Your task to perform on an android device: change notifications settings Image 0: 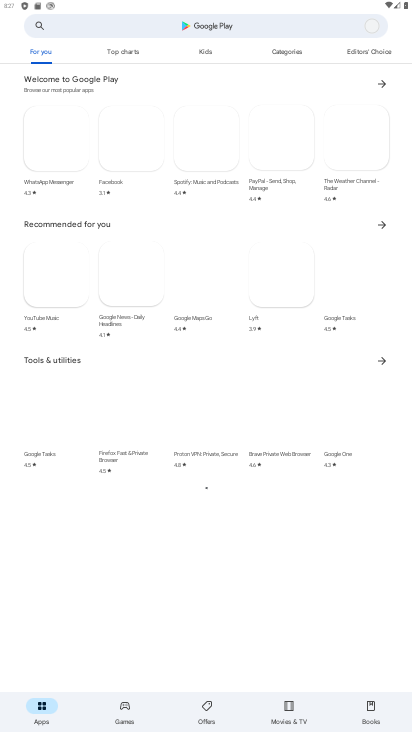
Step 0: drag from (254, 4) to (315, 482)
Your task to perform on an android device: change notifications settings Image 1: 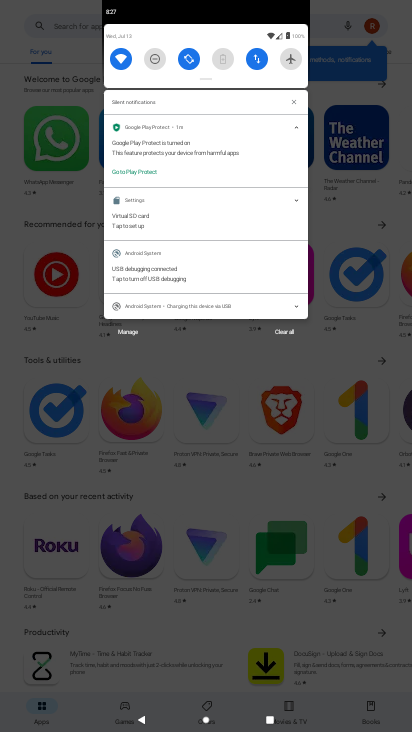
Step 1: drag from (178, 18) to (212, 371)
Your task to perform on an android device: change notifications settings Image 2: 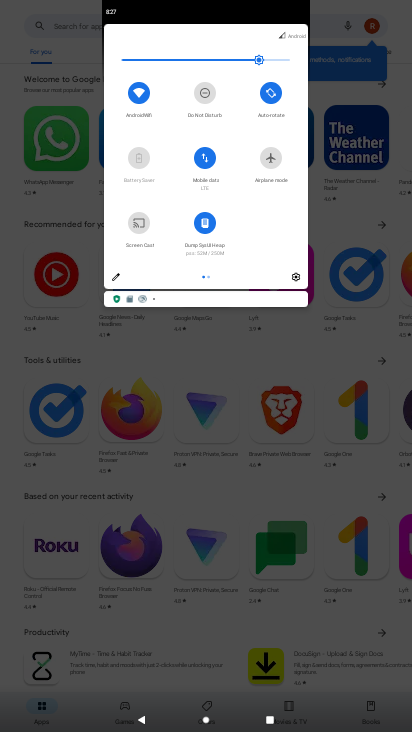
Step 2: click (294, 273)
Your task to perform on an android device: change notifications settings Image 3: 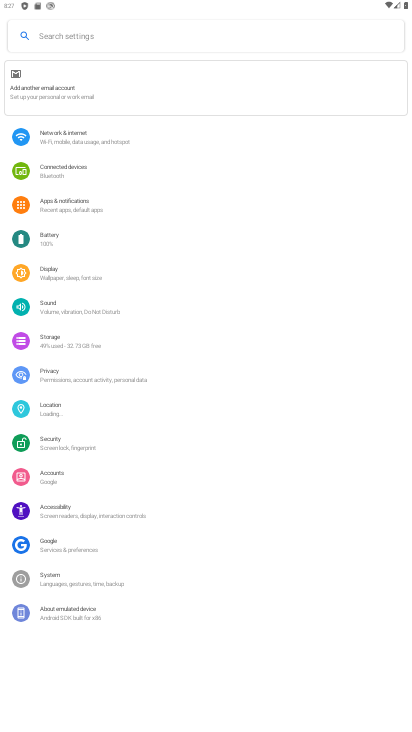
Step 3: click (76, 193)
Your task to perform on an android device: change notifications settings Image 4: 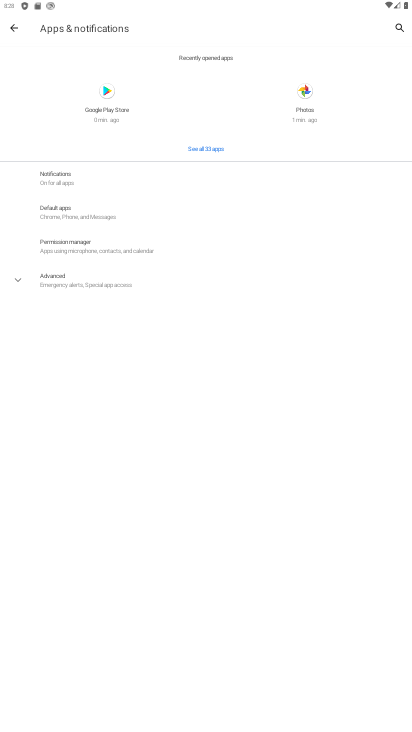
Step 4: click (63, 183)
Your task to perform on an android device: change notifications settings Image 5: 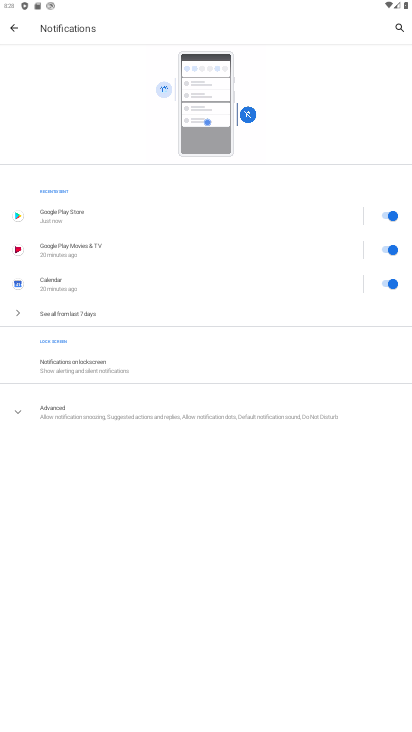
Step 5: click (161, 371)
Your task to perform on an android device: change notifications settings Image 6: 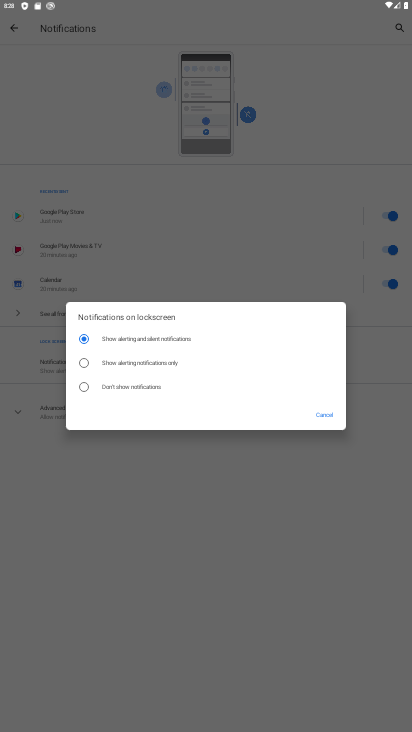
Step 6: click (161, 371)
Your task to perform on an android device: change notifications settings Image 7: 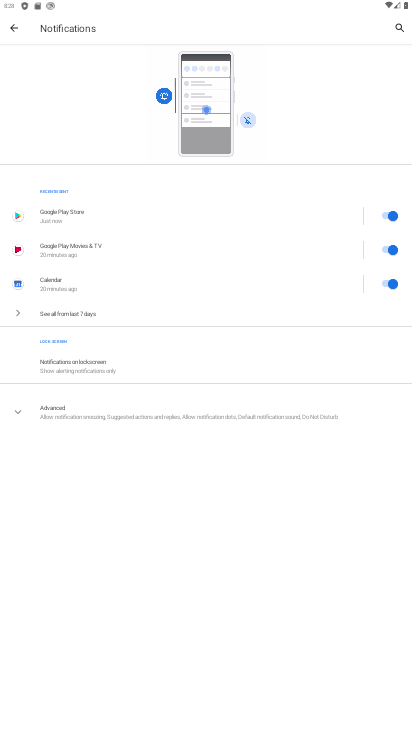
Step 7: task complete